Your task to perform on an android device: change alarm snooze length Image 0: 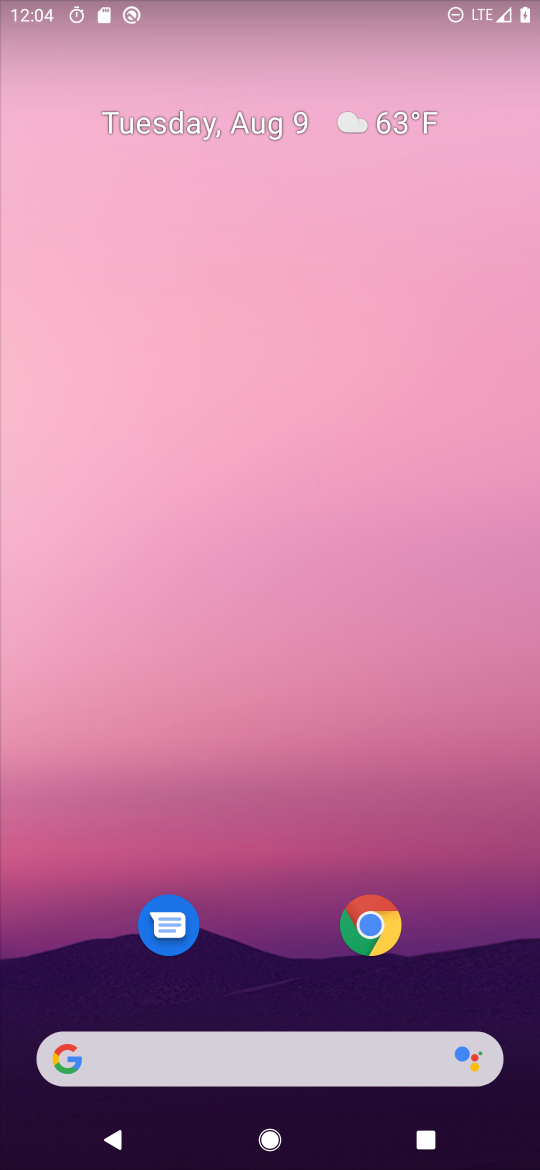
Step 0: drag from (303, 815) to (371, 209)
Your task to perform on an android device: change alarm snooze length Image 1: 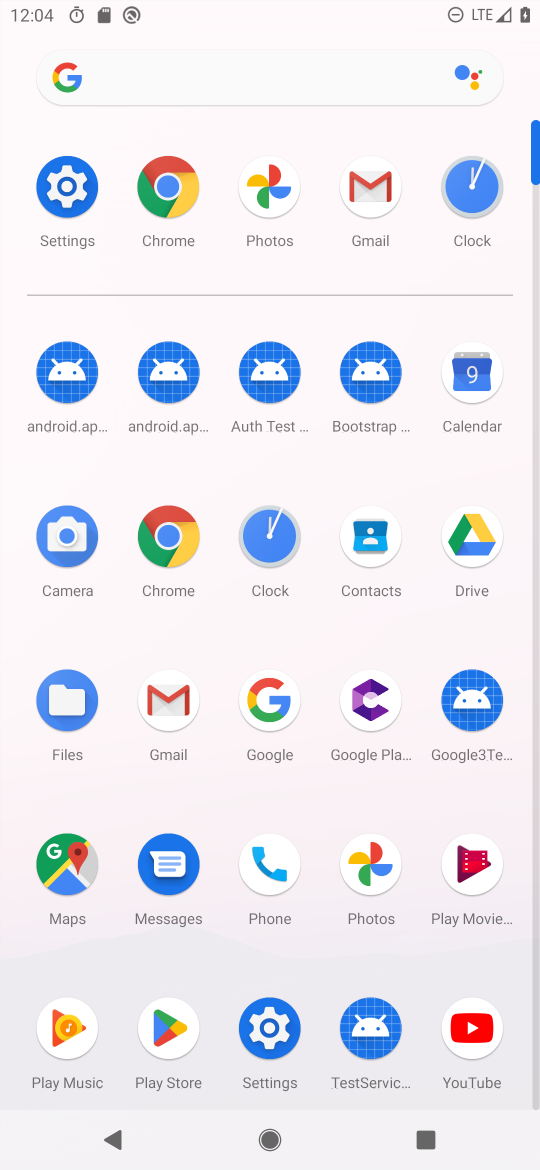
Step 1: click (276, 531)
Your task to perform on an android device: change alarm snooze length Image 2: 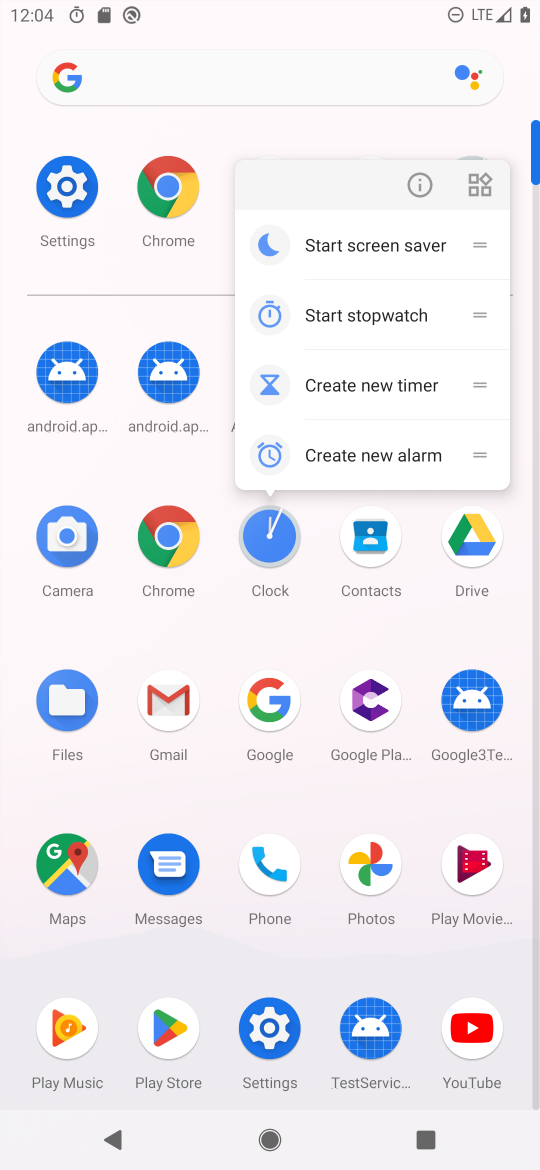
Step 2: click (268, 533)
Your task to perform on an android device: change alarm snooze length Image 3: 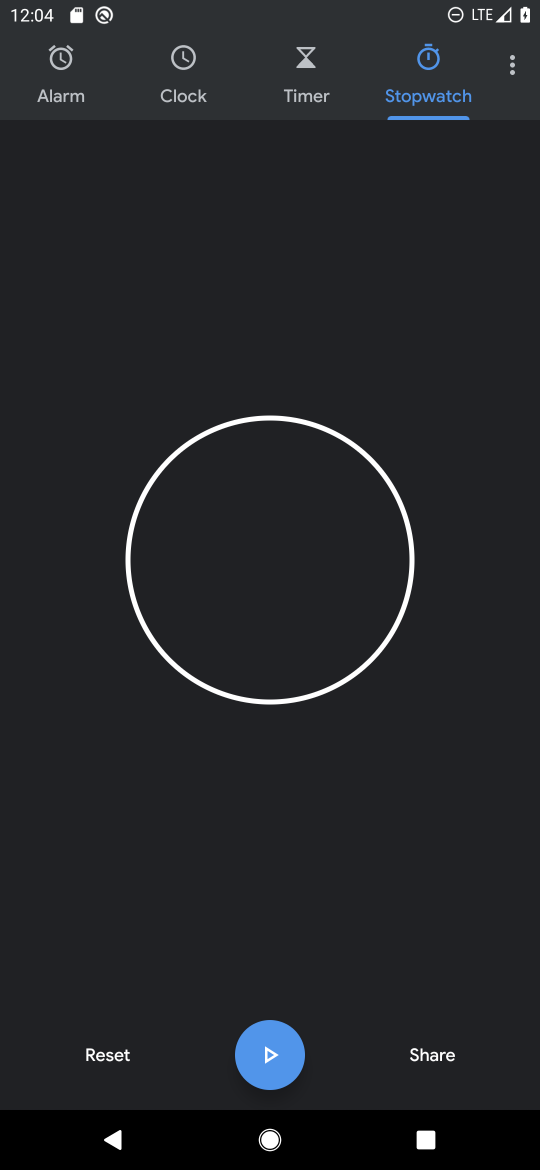
Step 3: click (495, 65)
Your task to perform on an android device: change alarm snooze length Image 4: 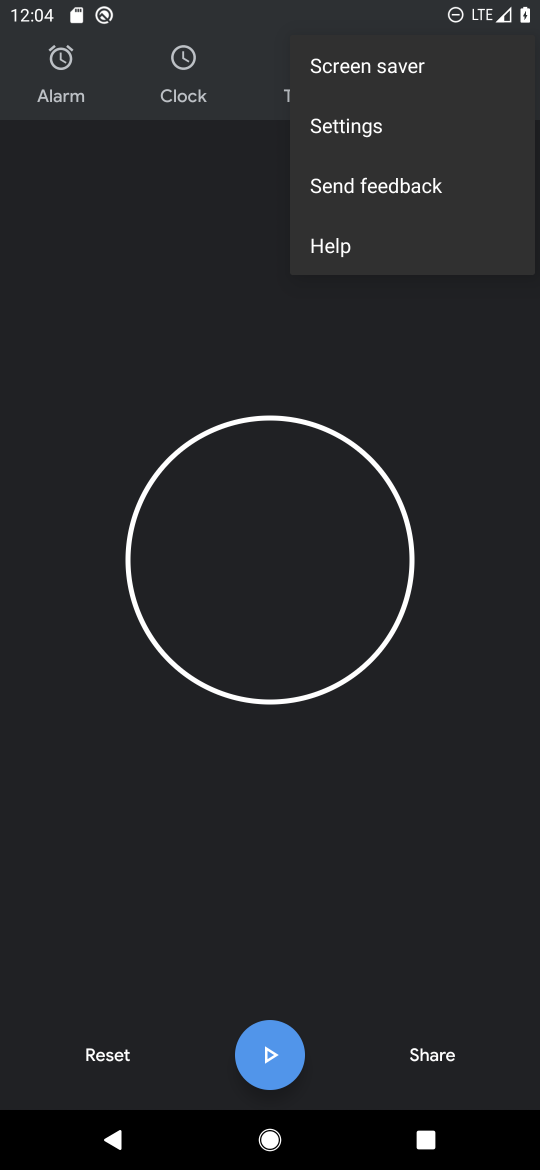
Step 4: click (364, 146)
Your task to perform on an android device: change alarm snooze length Image 5: 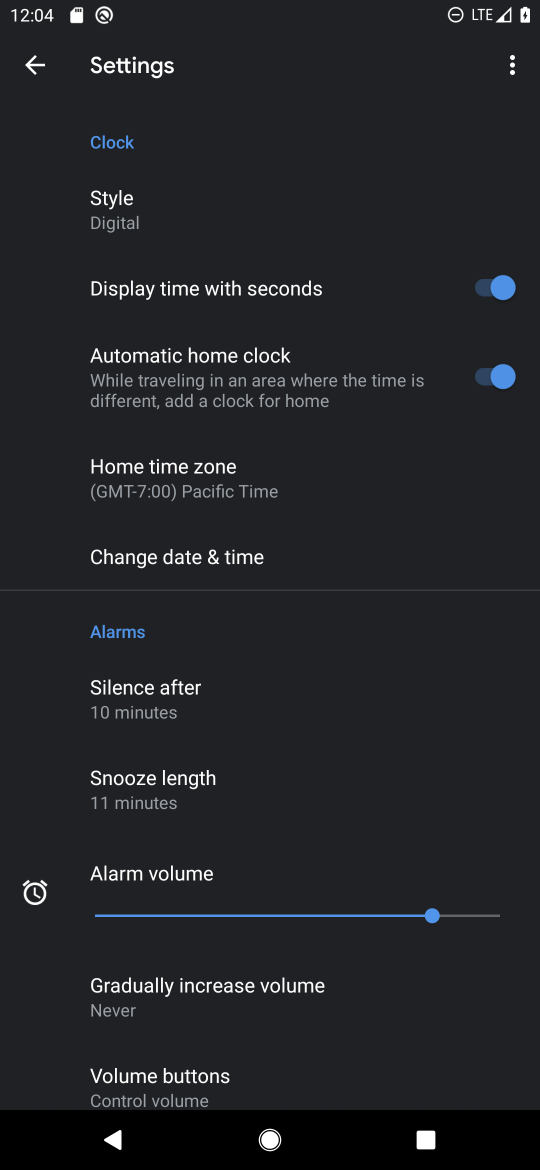
Step 5: click (189, 789)
Your task to perform on an android device: change alarm snooze length Image 6: 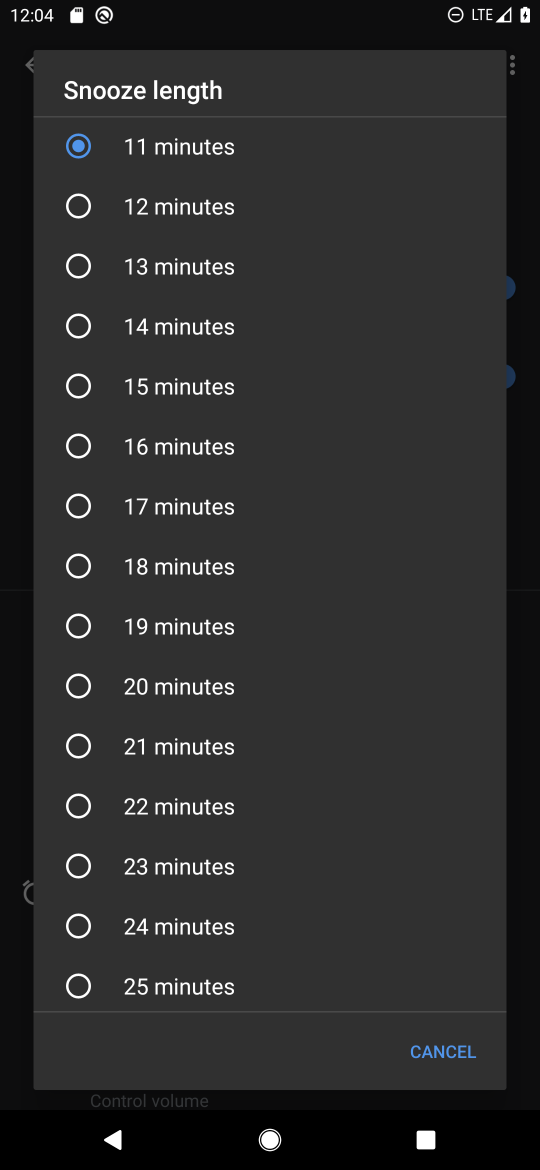
Step 6: click (149, 199)
Your task to perform on an android device: change alarm snooze length Image 7: 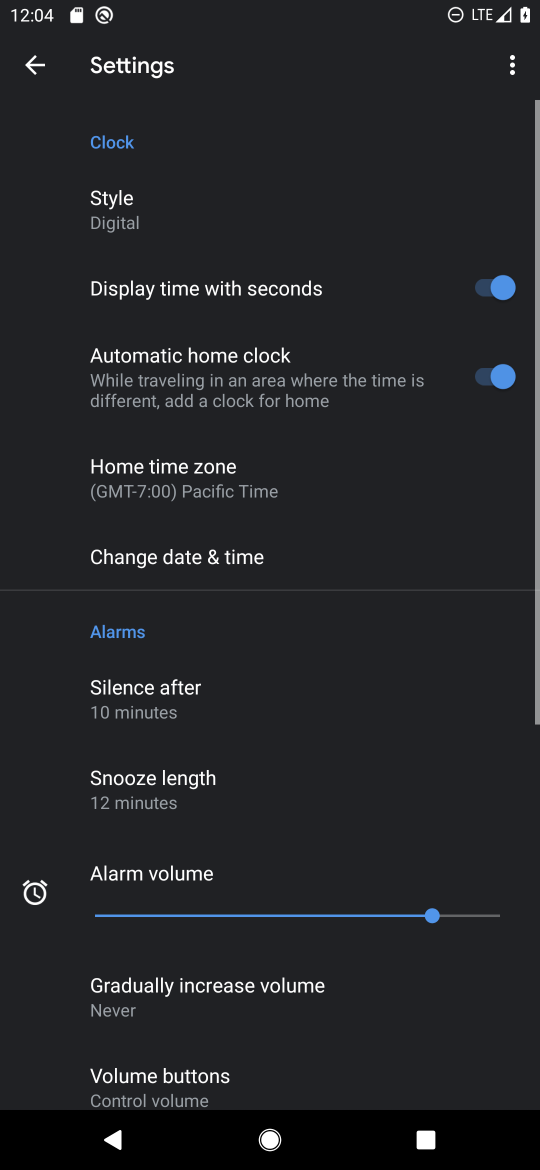
Step 7: task complete